Your task to perform on an android device: Go to Amazon Image 0: 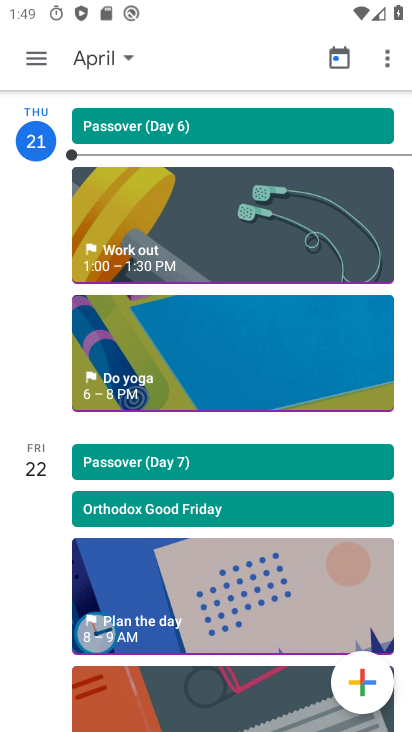
Step 0: press back button
Your task to perform on an android device: Go to Amazon Image 1: 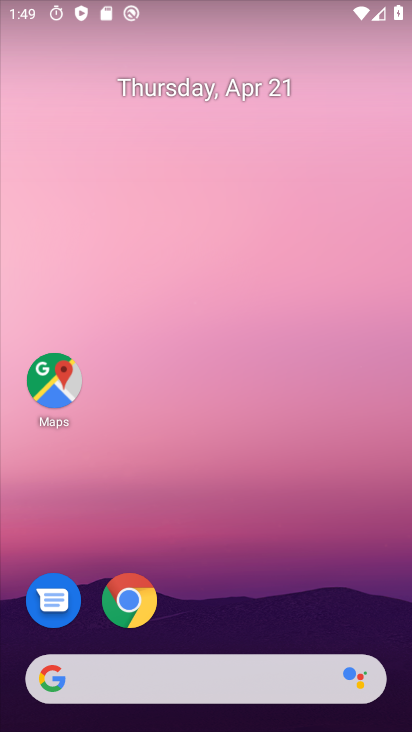
Step 1: click (110, 612)
Your task to perform on an android device: Go to Amazon Image 2: 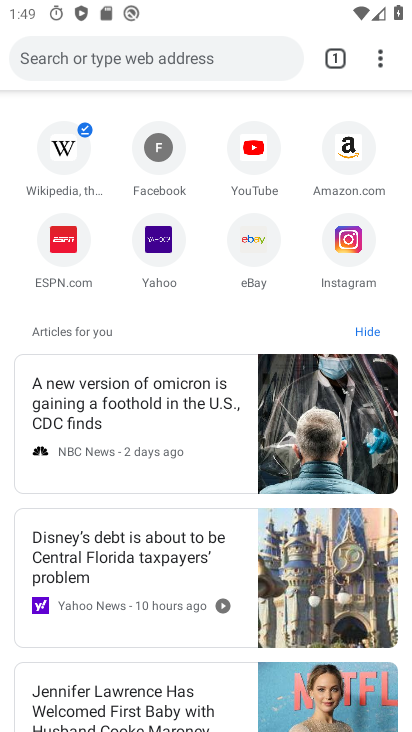
Step 2: click (344, 140)
Your task to perform on an android device: Go to Amazon Image 3: 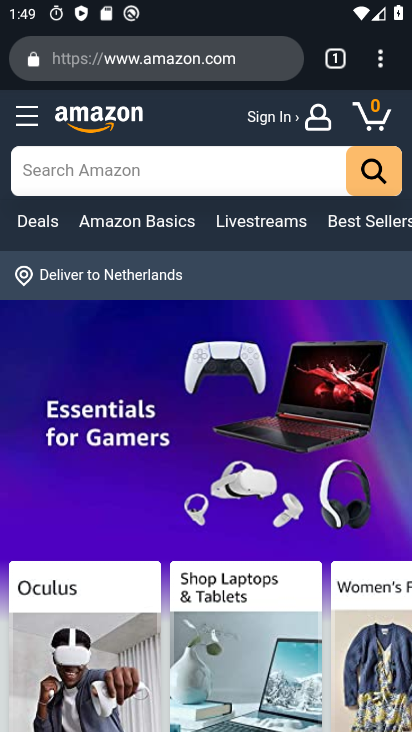
Step 3: task complete